Your task to perform on an android device: see sites visited before in the chrome app Image 0: 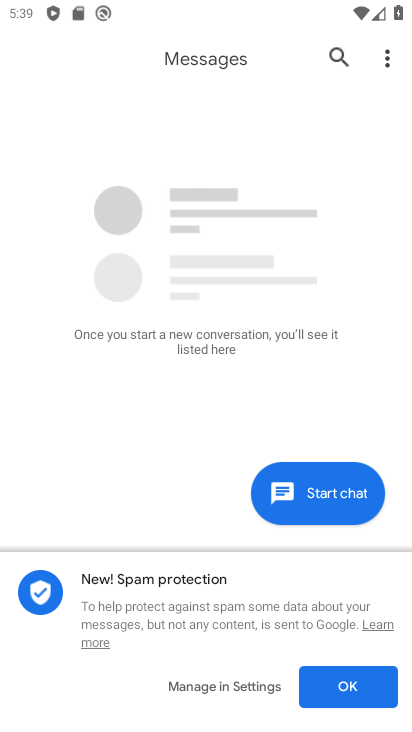
Step 0: press home button
Your task to perform on an android device: see sites visited before in the chrome app Image 1: 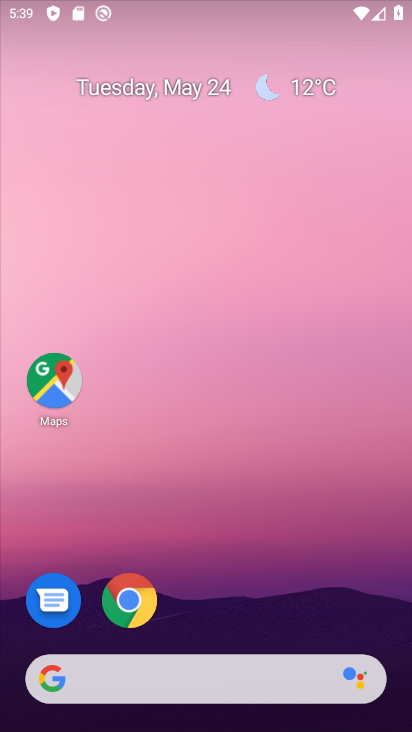
Step 1: drag from (245, 680) to (193, 8)
Your task to perform on an android device: see sites visited before in the chrome app Image 2: 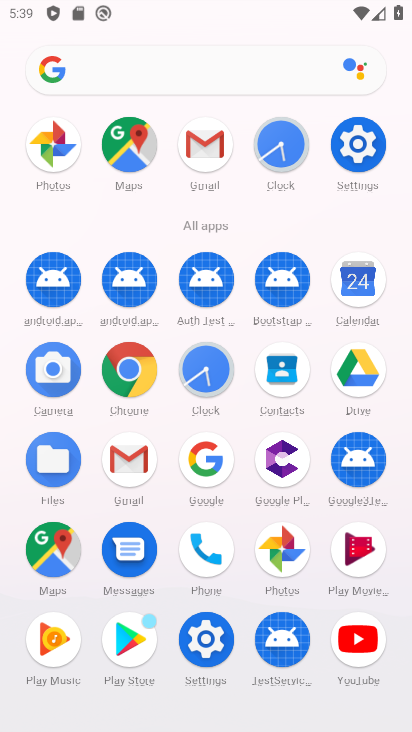
Step 2: click (120, 372)
Your task to perform on an android device: see sites visited before in the chrome app Image 3: 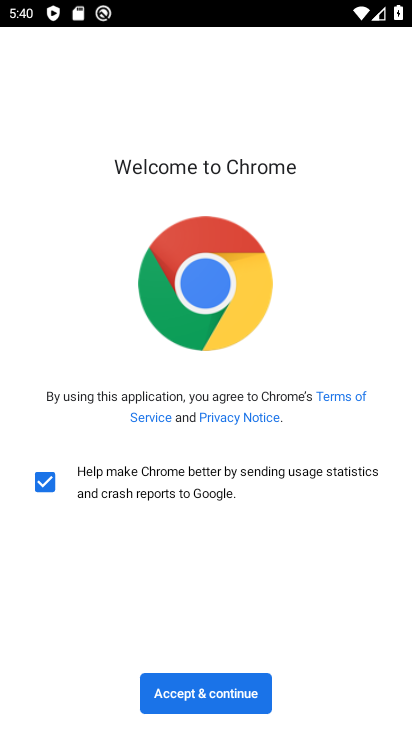
Step 3: click (195, 692)
Your task to perform on an android device: see sites visited before in the chrome app Image 4: 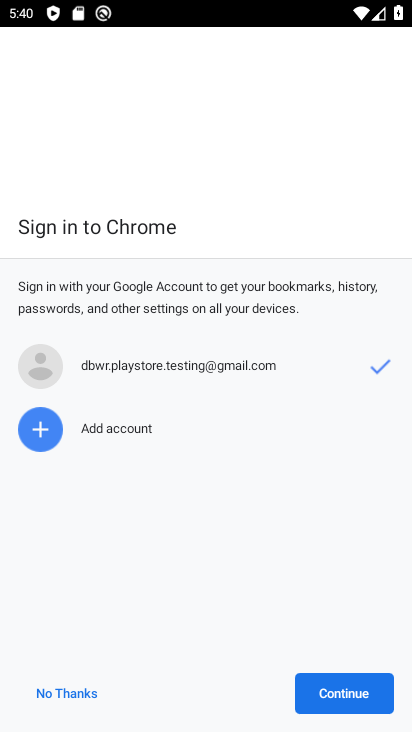
Step 4: click (89, 691)
Your task to perform on an android device: see sites visited before in the chrome app Image 5: 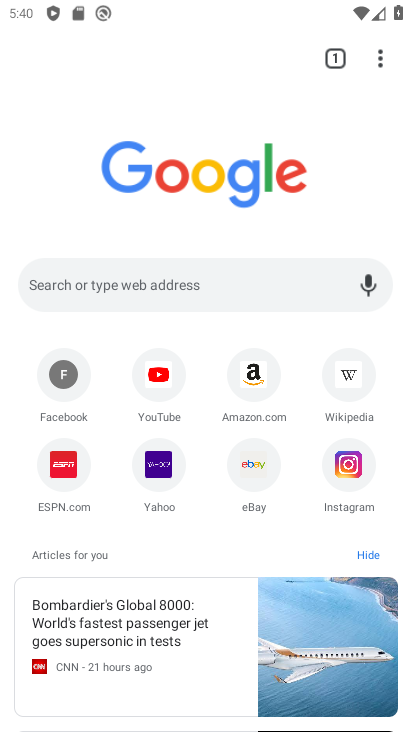
Step 5: task complete